Your task to perform on an android device: Do I have any events today? Image 0: 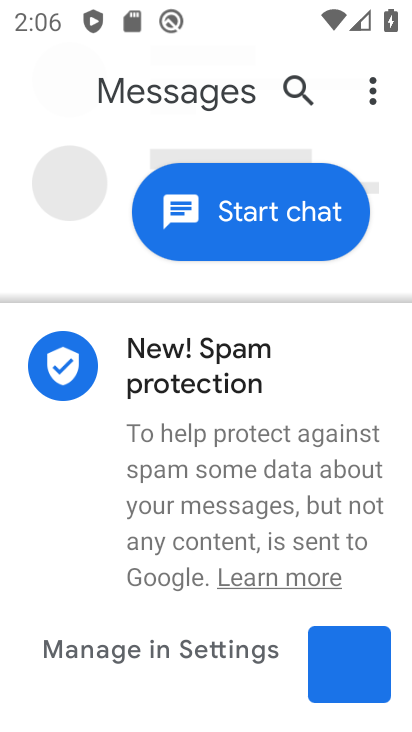
Step 0: press home button
Your task to perform on an android device: Do I have any events today? Image 1: 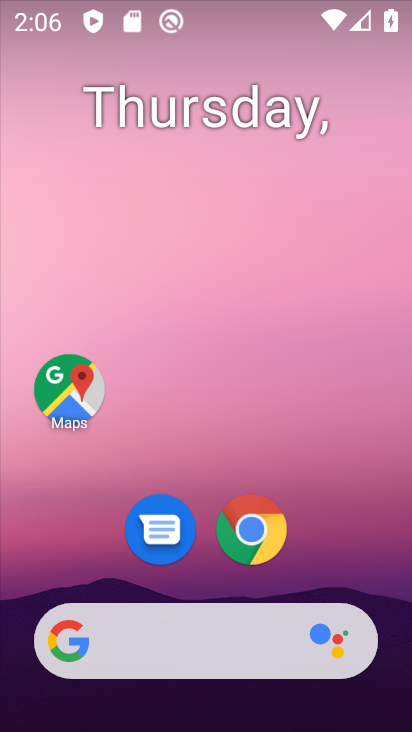
Step 1: drag from (147, 637) to (288, 144)
Your task to perform on an android device: Do I have any events today? Image 2: 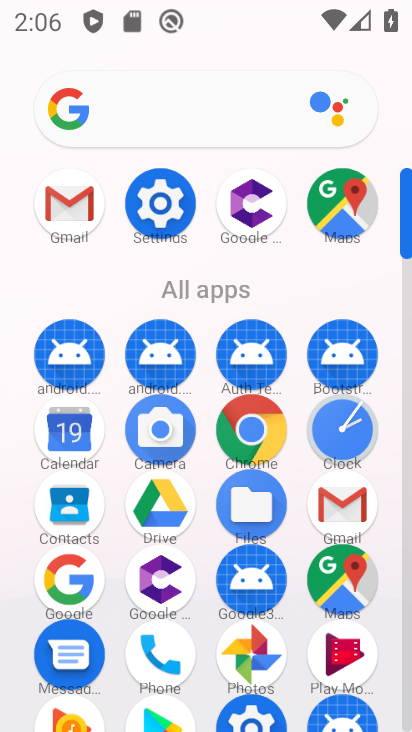
Step 2: click (72, 438)
Your task to perform on an android device: Do I have any events today? Image 3: 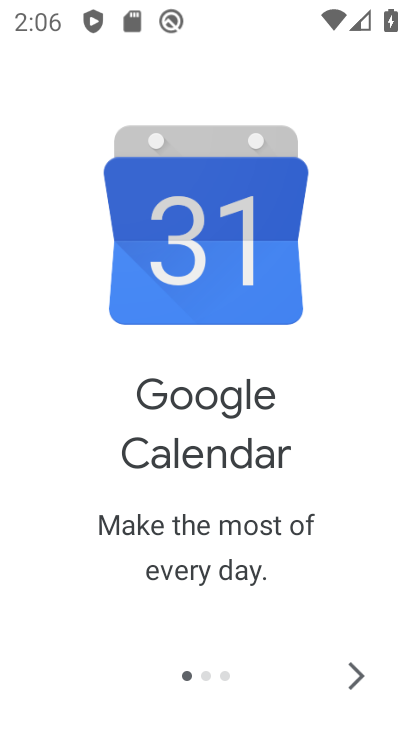
Step 3: click (353, 671)
Your task to perform on an android device: Do I have any events today? Image 4: 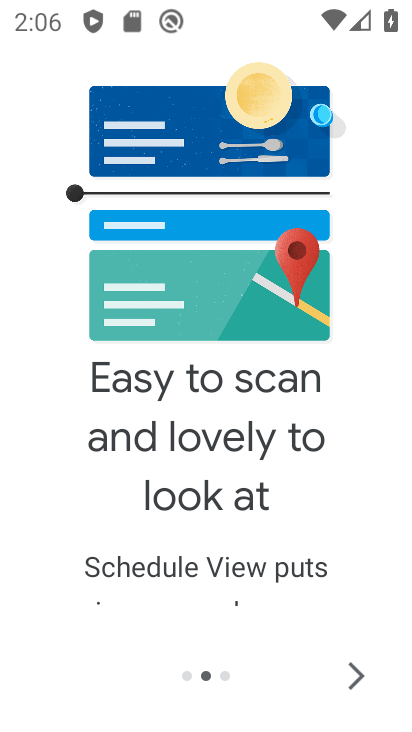
Step 4: click (353, 673)
Your task to perform on an android device: Do I have any events today? Image 5: 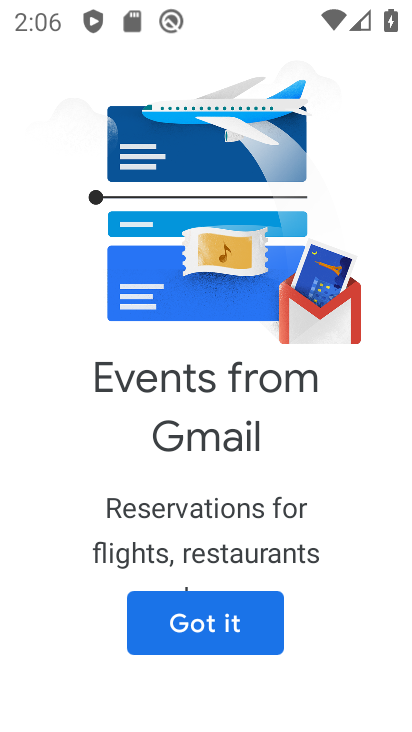
Step 5: click (192, 608)
Your task to perform on an android device: Do I have any events today? Image 6: 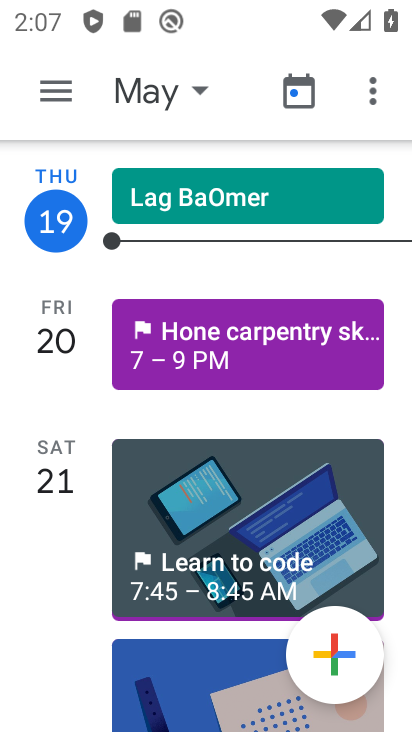
Step 6: click (155, 89)
Your task to perform on an android device: Do I have any events today? Image 7: 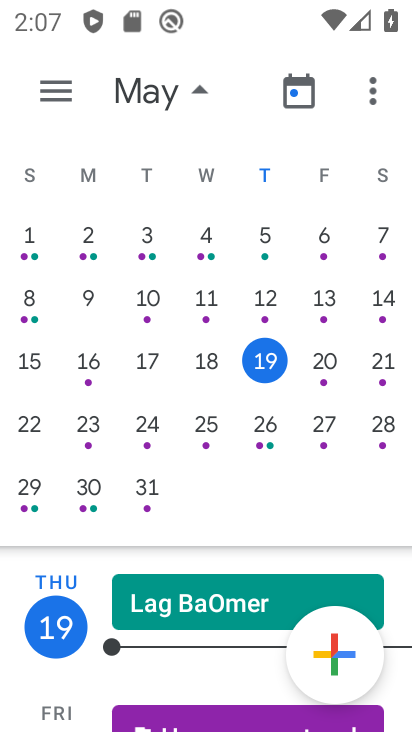
Step 7: click (265, 357)
Your task to perform on an android device: Do I have any events today? Image 8: 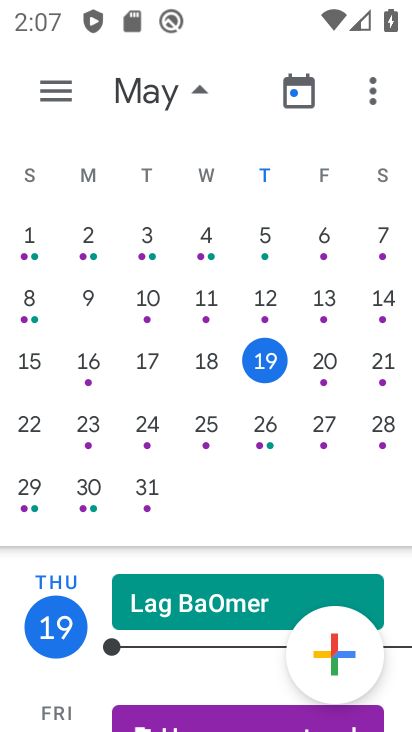
Step 8: click (60, 90)
Your task to perform on an android device: Do I have any events today? Image 9: 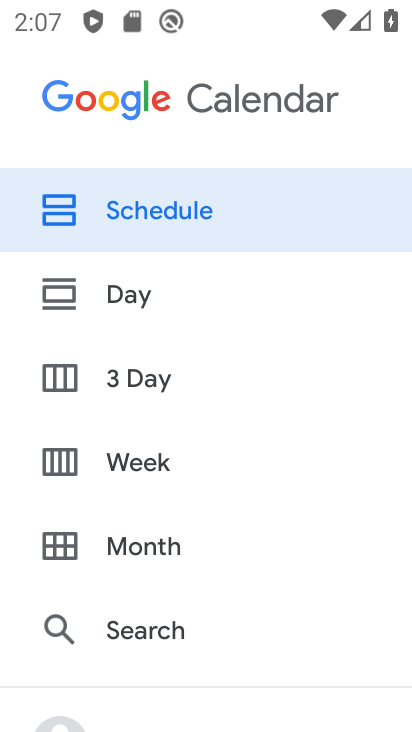
Step 9: click (146, 214)
Your task to perform on an android device: Do I have any events today? Image 10: 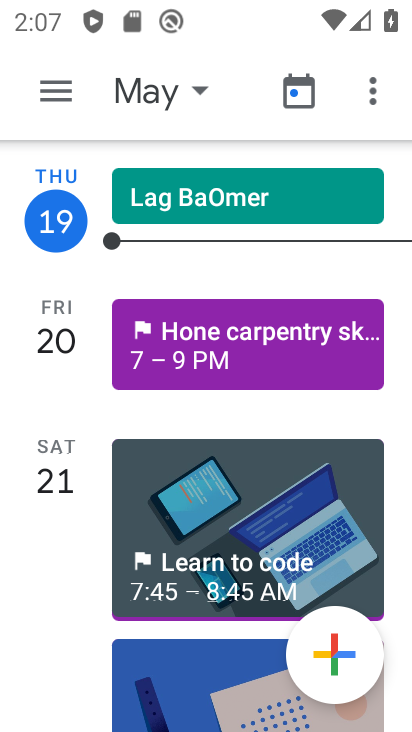
Step 10: click (170, 205)
Your task to perform on an android device: Do I have any events today? Image 11: 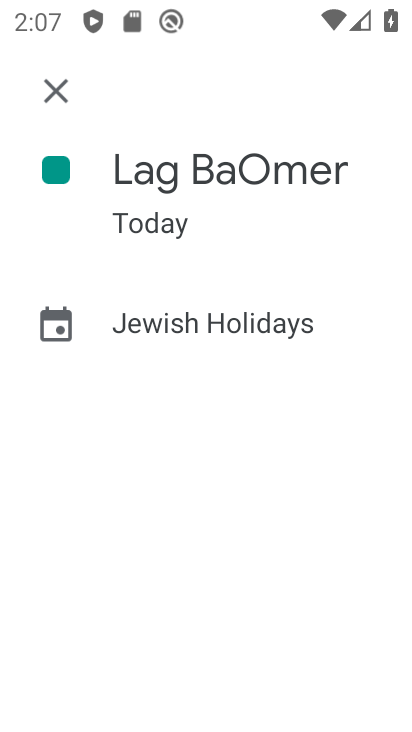
Step 11: task complete